Your task to perform on an android device: open app "Google Maps" Image 0: 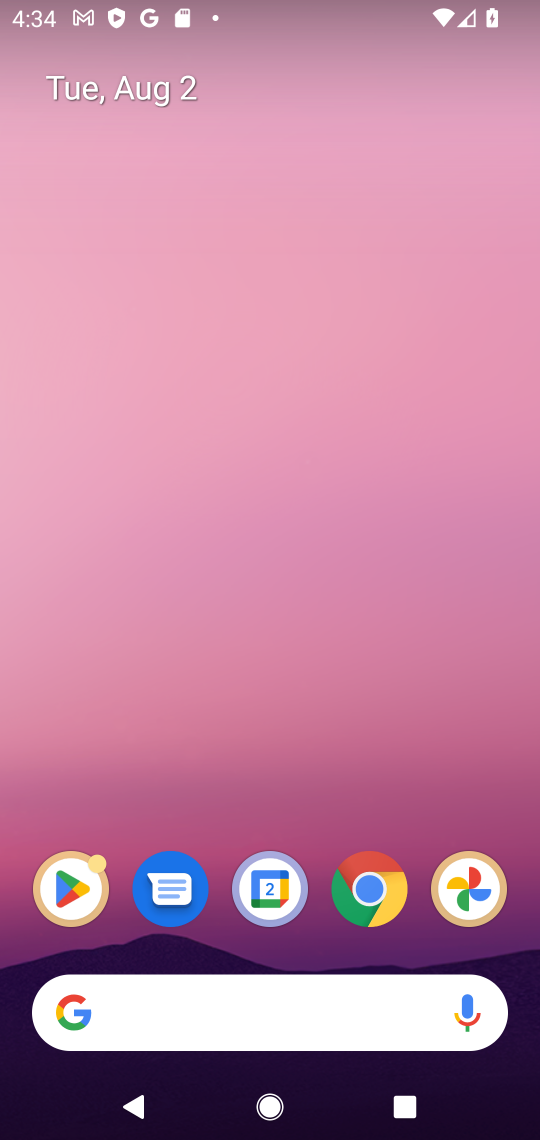
Step 0: drag from (345, 829) to (290, 137)
Your task to perform on an android device: open app "Google Maps" Image 1: 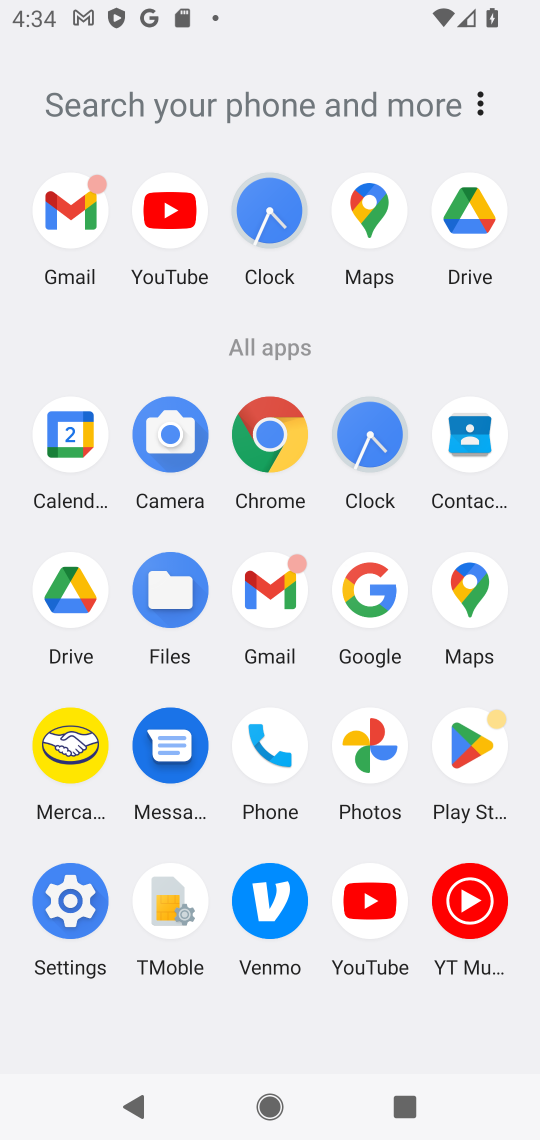
Step 1: click (486, 589)
Your task to perform on an android device: open app "Google Maps" Image 2: 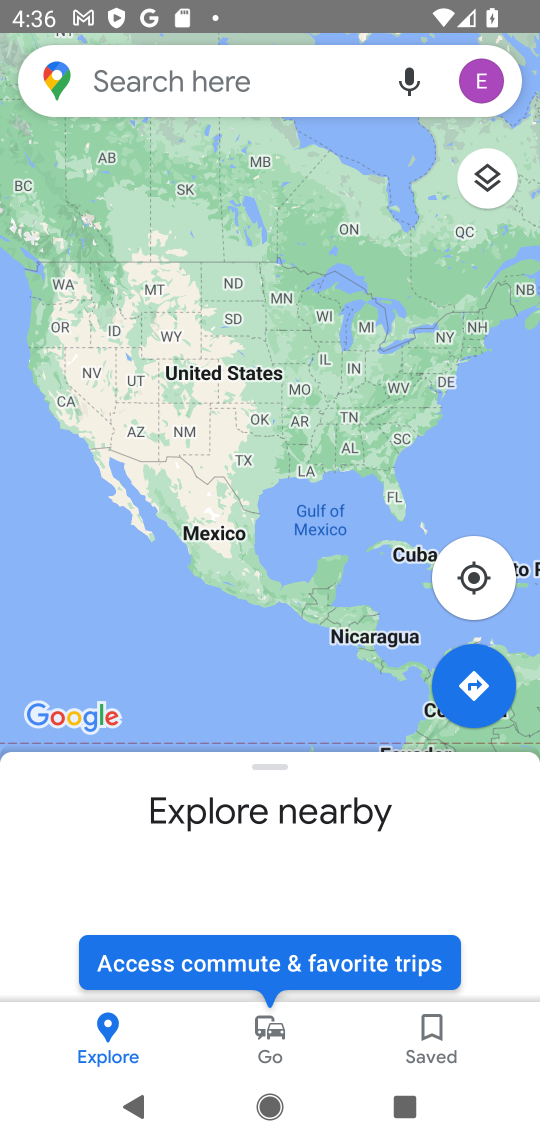
Step 2: task complete